Your task to perform on an android device: Open eBay Image 0: 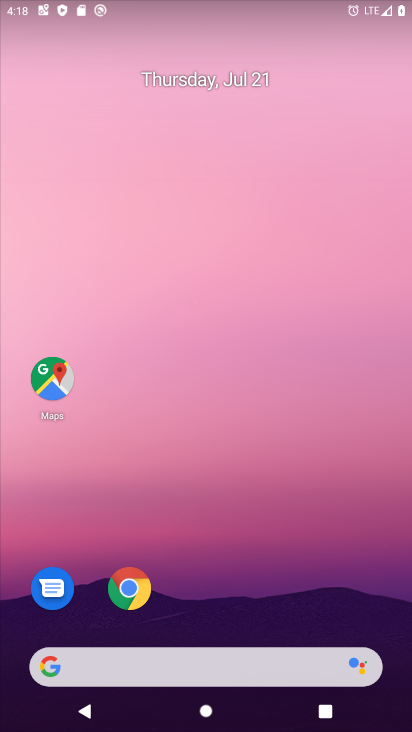
Step 0: drag from (244, 627) to (249, 26)
Your task to perform on an android device: Open eBay Image 1: 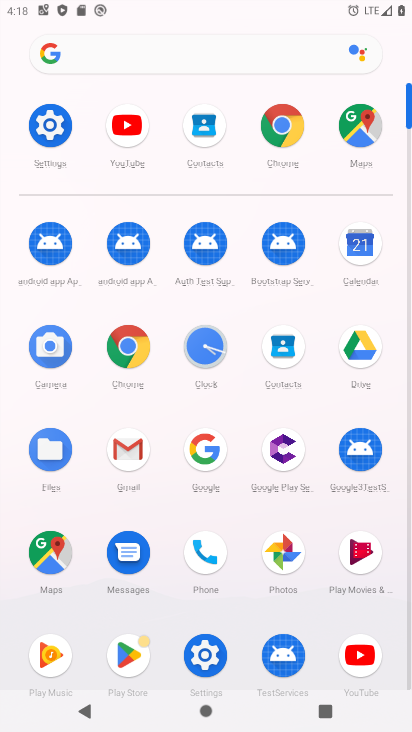
Step 1: click (122, 344)
Your task to perform on an android device: Open eBay Image 2: 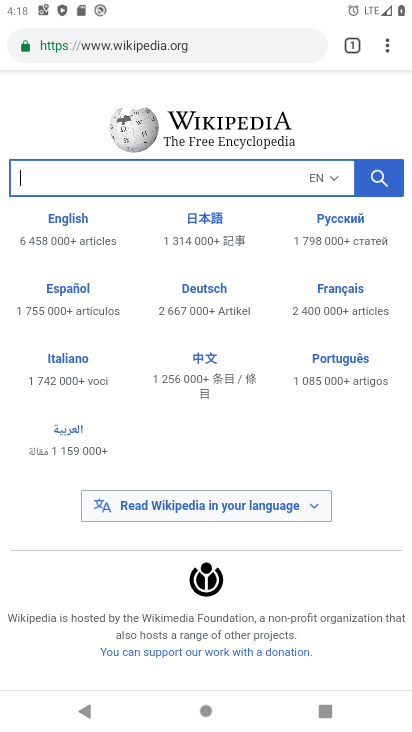
Step 2: click (169, 48)
Your task to perform on an android device: Open eBay Image 3: 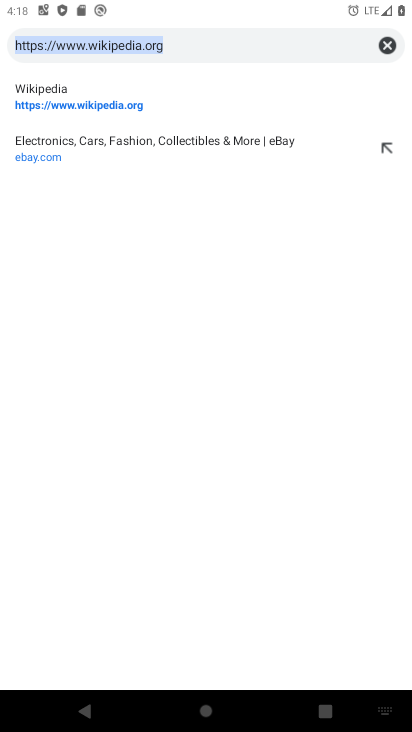
Step 3: click (392, 43)
Your task to perform on an android device: Open eBay Image 4: 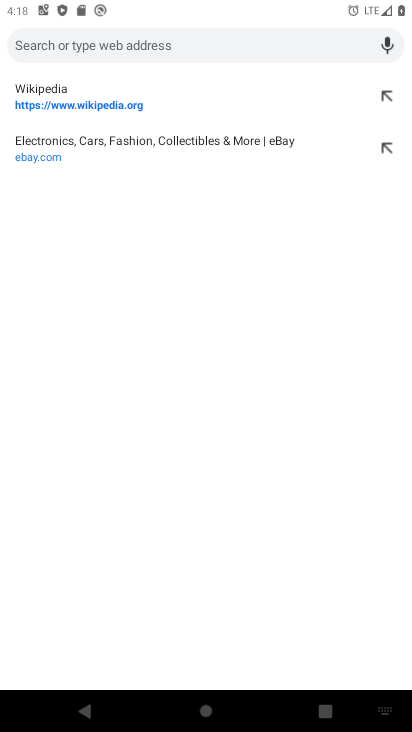
Step 4: type "eBay"
Your task to perform on an android device: Open eBay Image 5: 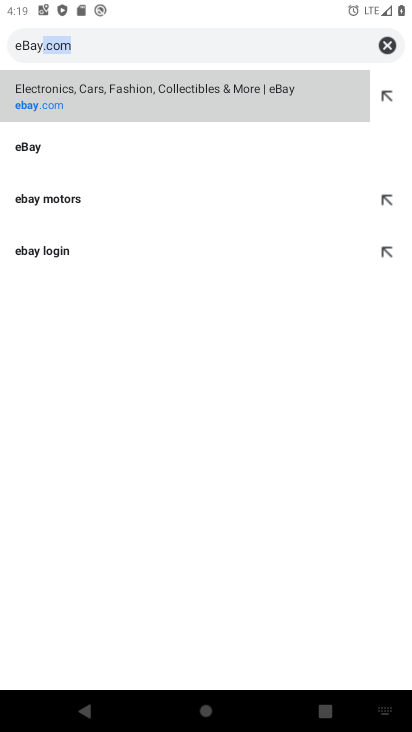
Step 5: click (27, 103)
Your task to perform on an android device: Open eBay Image 6: 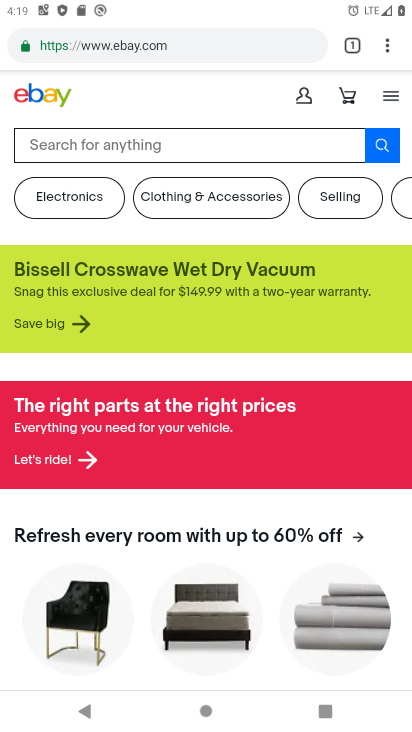
Step 6: task complete